Your task to perform on an android device: Is it going to rain tomorrow? Image 0: 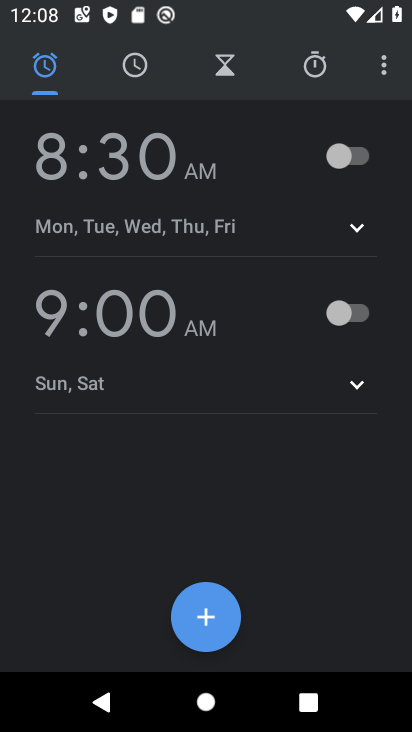
Step 0: press home button
Your task to perform on an android device: Is it going to rain tomorrow? Image 1: 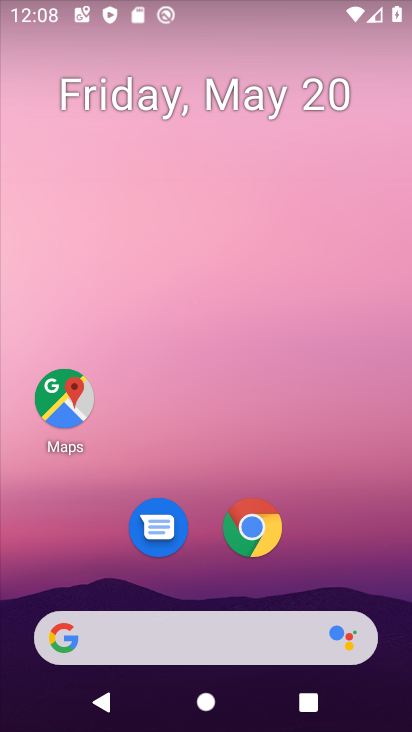
Step 1: click (241, 538)
Your task to perform on an android device: Is it going to rain tomorrow? Image 2: 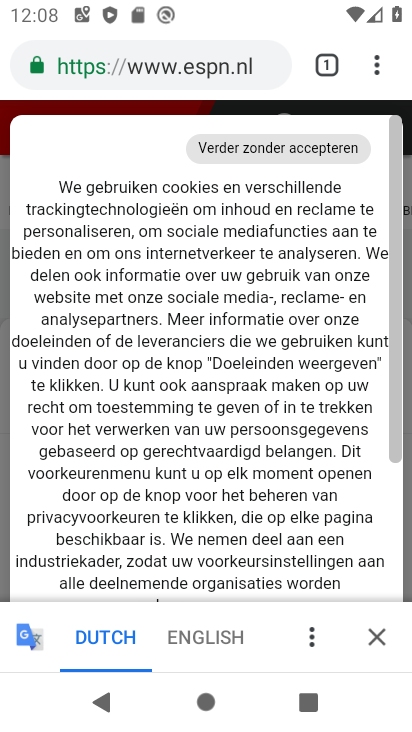
Step 2: click (214, 72)
Your task to perform on an android device: Is it going to rain tomorrow? Image 3: 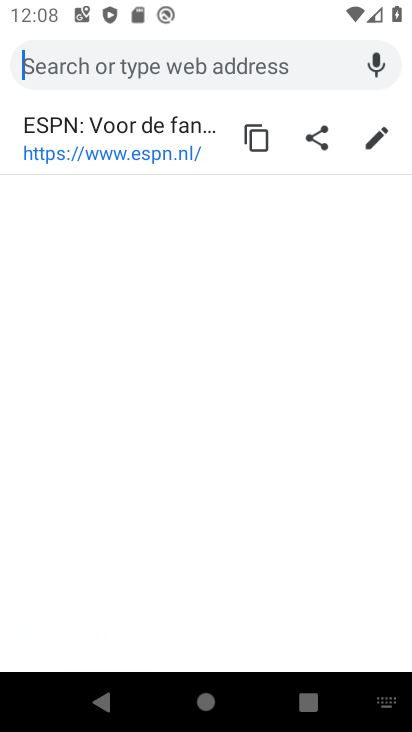
Step 3: type "Is it going to rain tomorrow?"
Your task to perform on an android device: Is it going to rain tomorrow? Image 4: 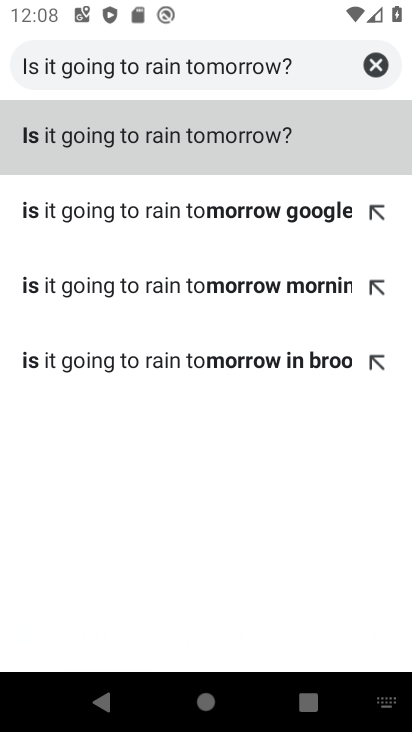
Step 4: click (189, 119)
Your task to perform on an android device: Is it going to rain tomorrow? Image 5: 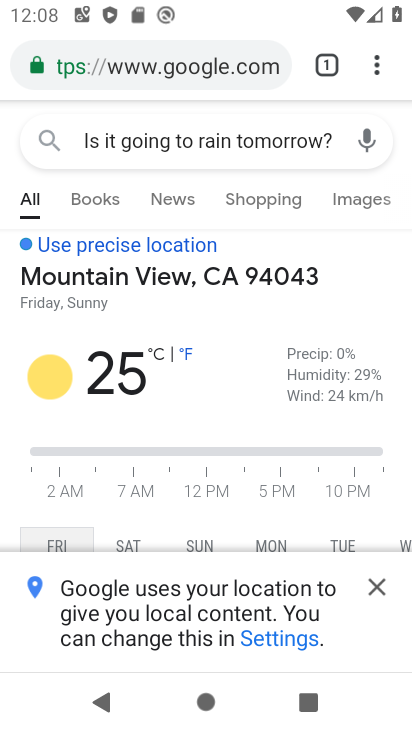
Step 5: task complete